Your task to perform on an android device: Go to Google maps Image 0: 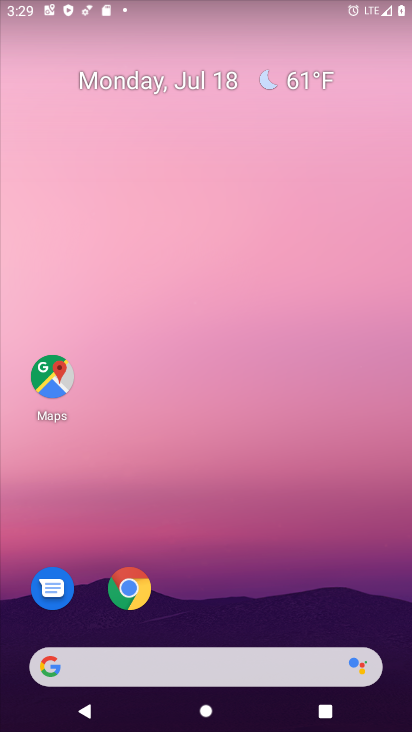
Step 0: click (30, 378)
Your task to perform on an android device: Go to Google maps Image 1: 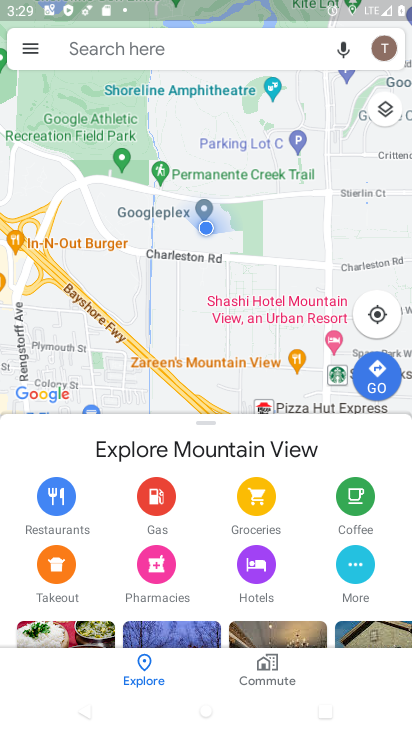
Step 1: task complete